Your task to perform on an android device: Go to internet settings Image 0: 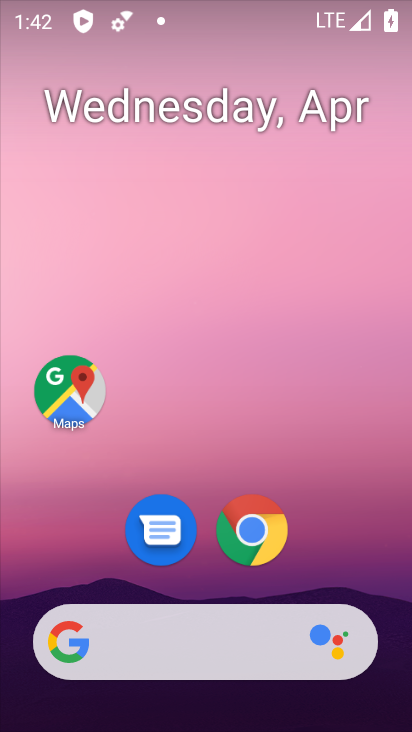
Step 0: drag from (321, 480) to (307, 121)
Your task to perform on an android device: Go to internet settings Image 1: 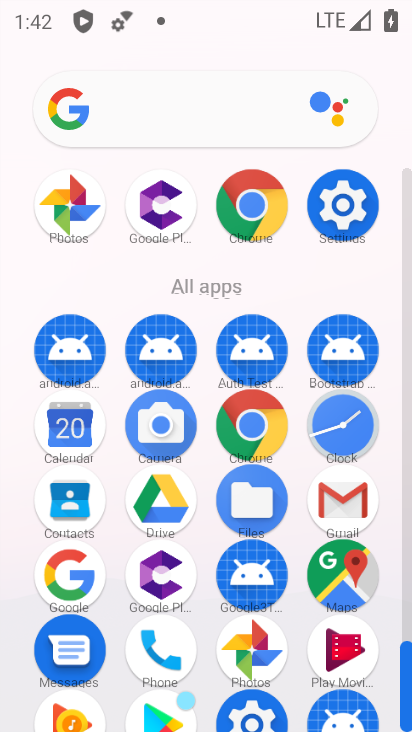
Step 1: click (330, 217)
Your task to perform on an android device: Go to internet settings Image 2: 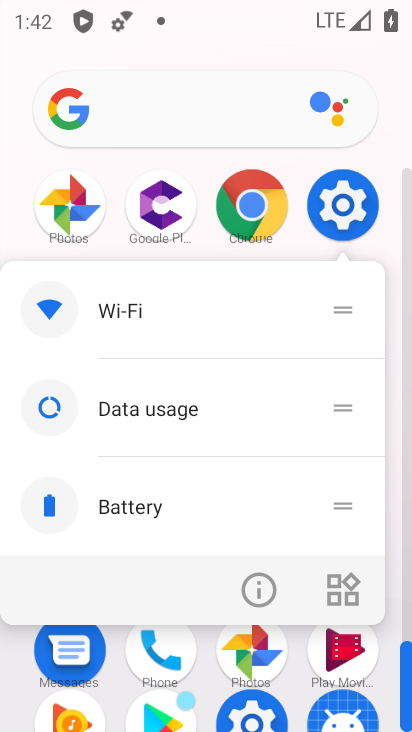
Step 2: click (248, 709)
Your task to perform on an android device: Go to internet settings Image 3: 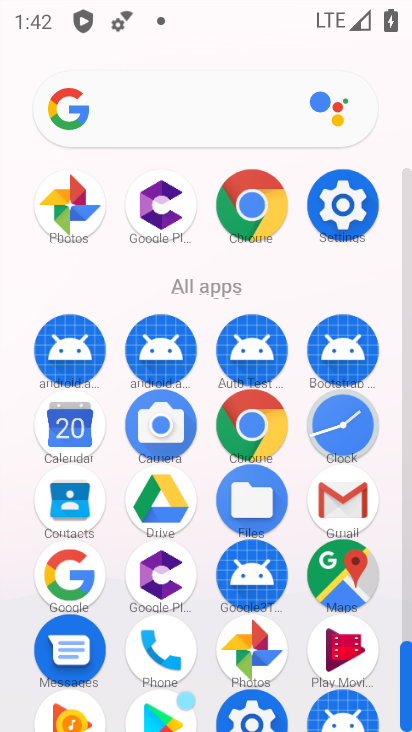
Step 3: click (247, 709)
Your task to perform on an android device: Go to internet settings Image 4: 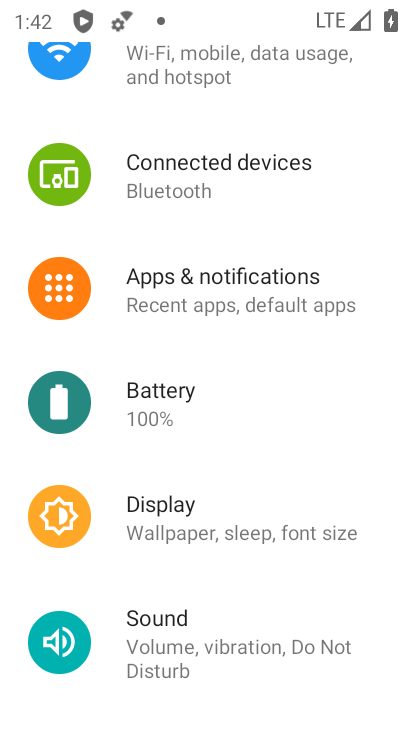
Step 4: click (213, 77)
Your task to perform on an android device: Go to internet settings Image 5: 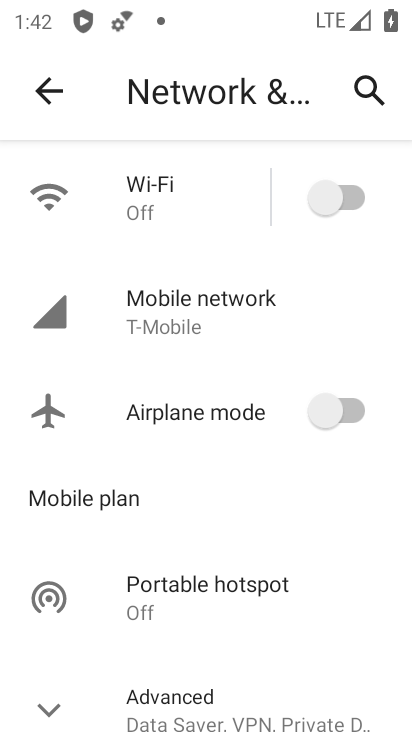
Step 5: task complete